Your task to perform on an android device: turn on the 12-hour format for clock Image 0: 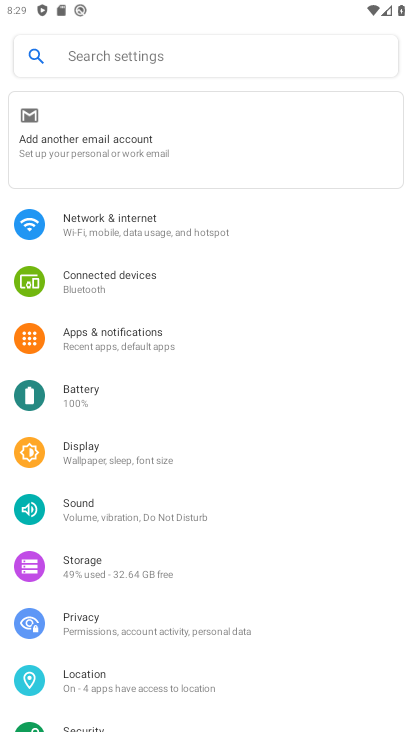
Step 0: press home button
Your task to perform on an android device: turn on the 12-hour format for clock Image 1: 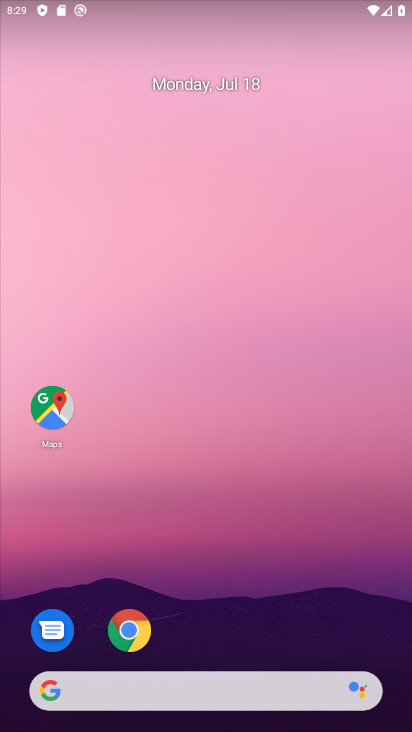
Step 1: drag from (247, 631) to (247, 174)
Your task to perform on an android device: turn on the 12-hour format for clock Image 2: 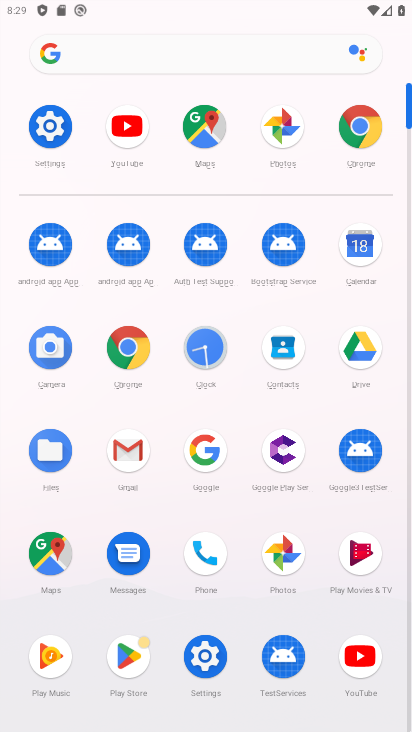
Step 2: click (211, 340)
Your task to perform on an android device: turn on the 12-hour format for clock Image 3: 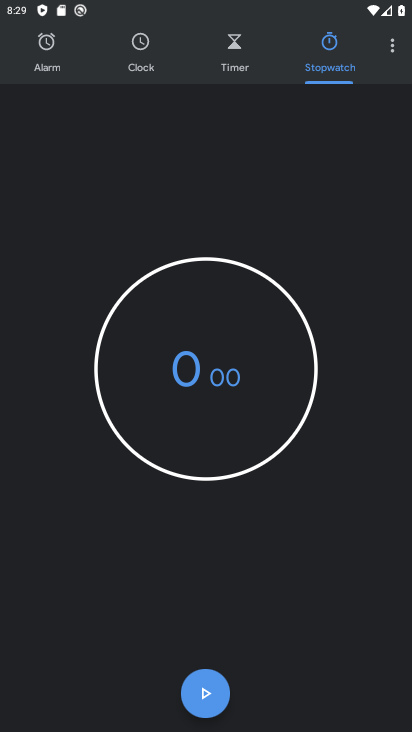
Step 3: click (394, 52)
Your task to perform on an android device: turn on the 12-hour format for clock Image 4: 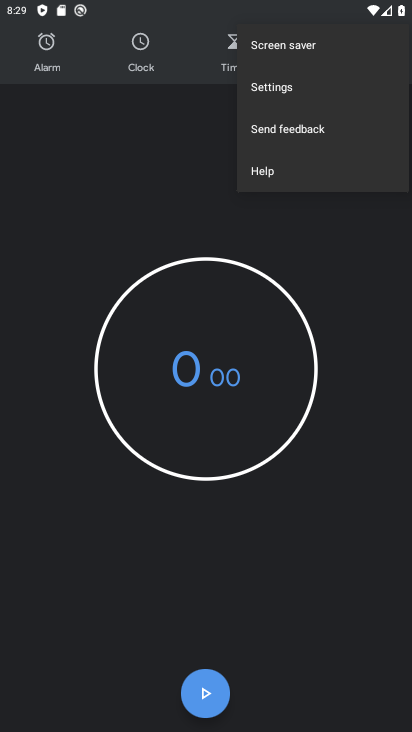
Step 4: click (275, 73)
Your task to perform on an android device: turn on the 12-hour format for clock Image 5: 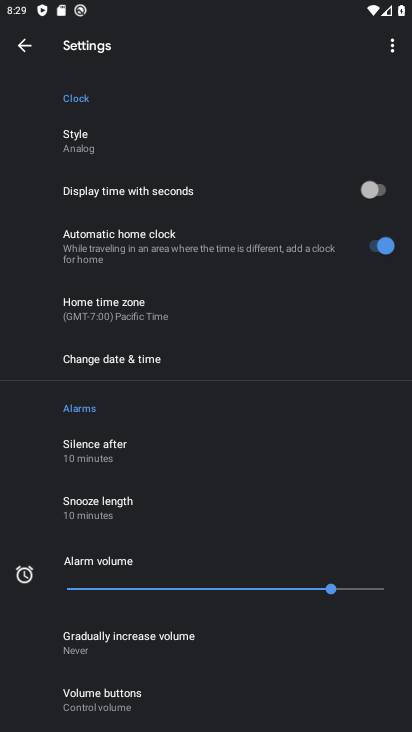
Step 5: click (131, 347)
Your task to perform on an android device: turn on the 12-hour format for clock Image 6: 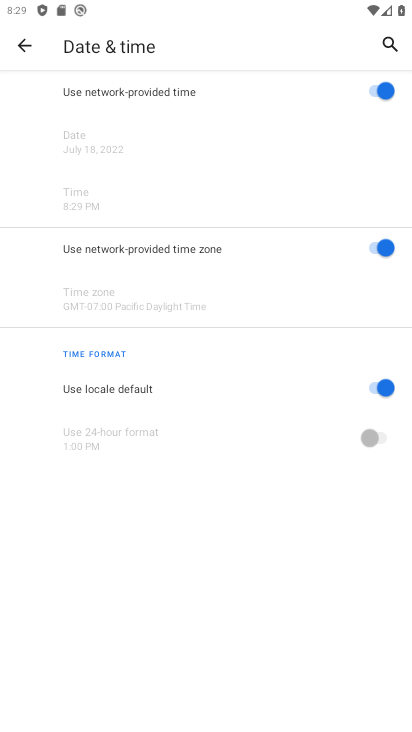
Step 6: click (386, 384)
Your task to perform on an android device: turn on the 12-hour format for clock Image 7: 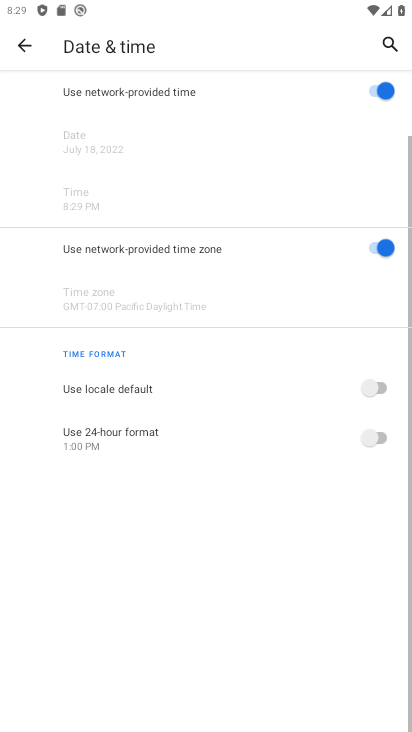
Step 7: click (374, 437)
Your task to perform on an android device: turn on the 12-hour format for clock Image 8: 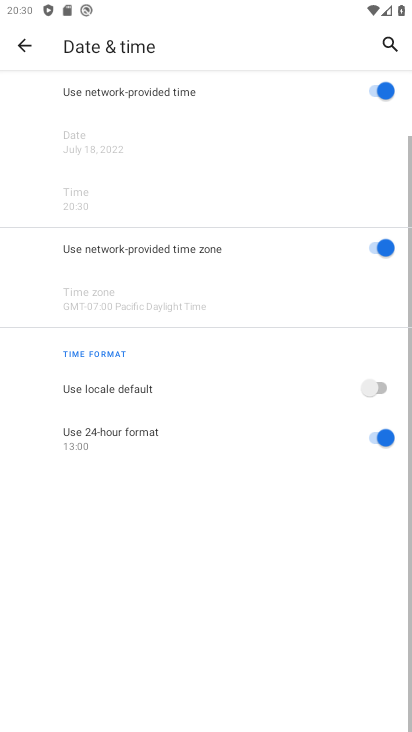
Step 8: task complete